Your task to perform on an android device: turn on priority inbox in the gmail app Image 0: 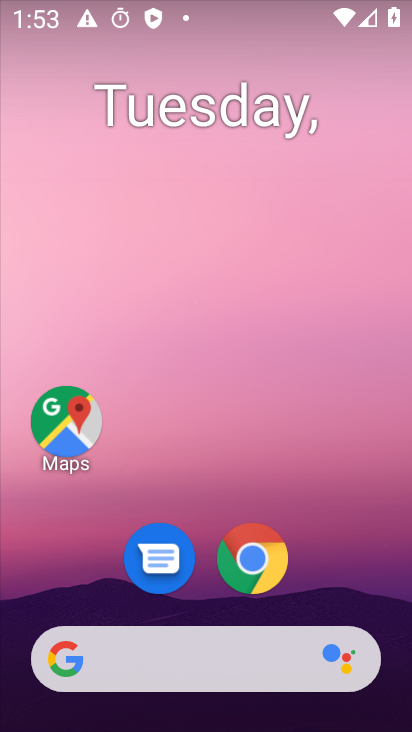
Step 0: drag from (203, 493) to (169, 55)
Your task to perform on an android device: turn on priority inbox in the gmail app Image 1: 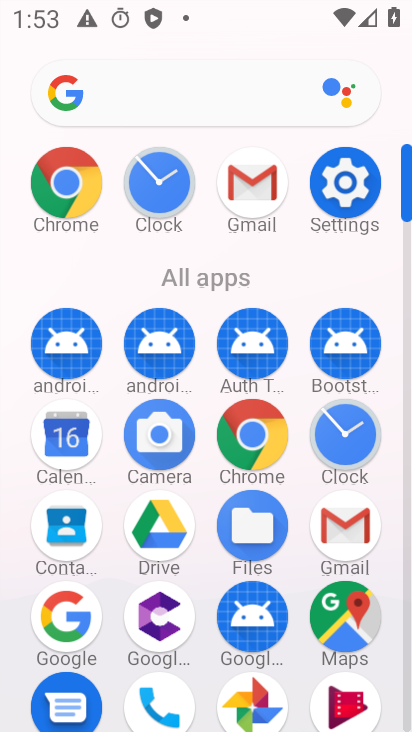
Step 1: click (260, 197)
Your task to perform on an android device: turn on priority inbox in the gmail app Image 2: 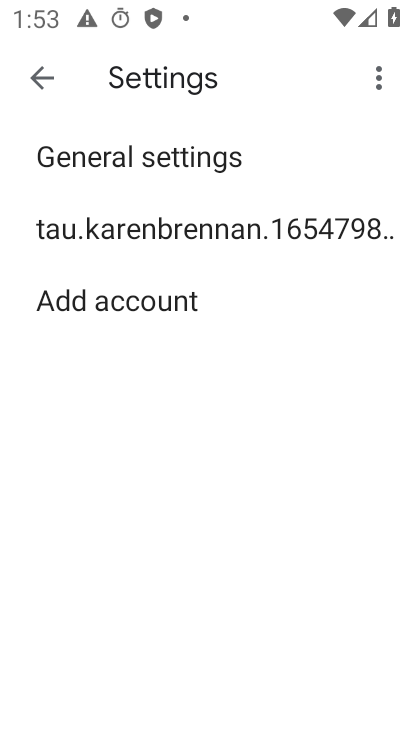
Step 2: click (124, 224)
Your task to perform on an android device: turn on priority inbox in the gmail app Image 3: 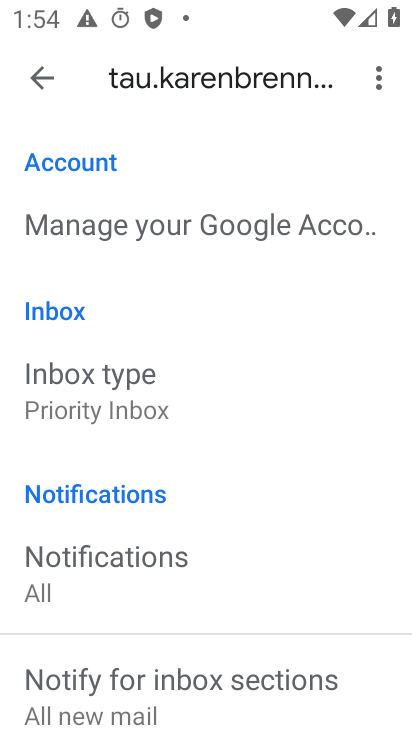
Step 3: task complete